Your task to perform on an android device: Go to Amazon Image 0: 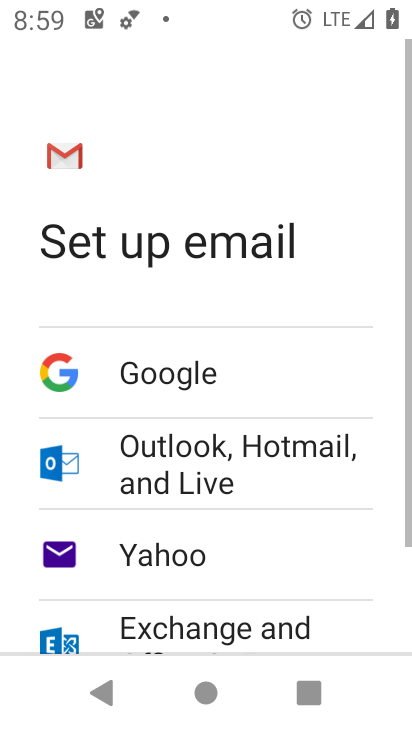
Step 0: press home button
Your task to perform on an android device: Go to Amazon Image 1: 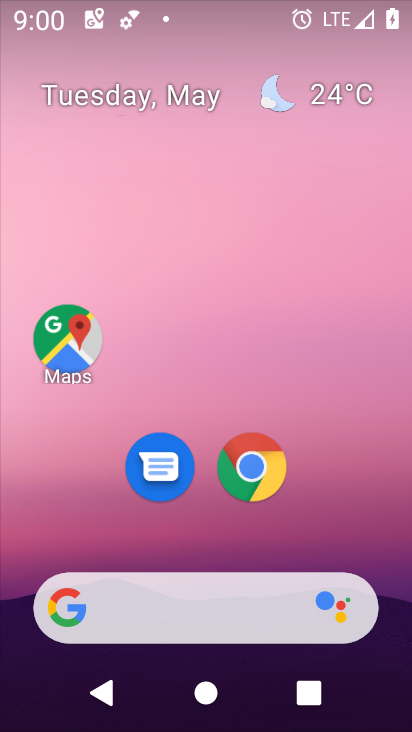
Step 1: drag from (395, 681) to (327, 199)
Your task to perform on an android device: Go to Amazon Image 2: 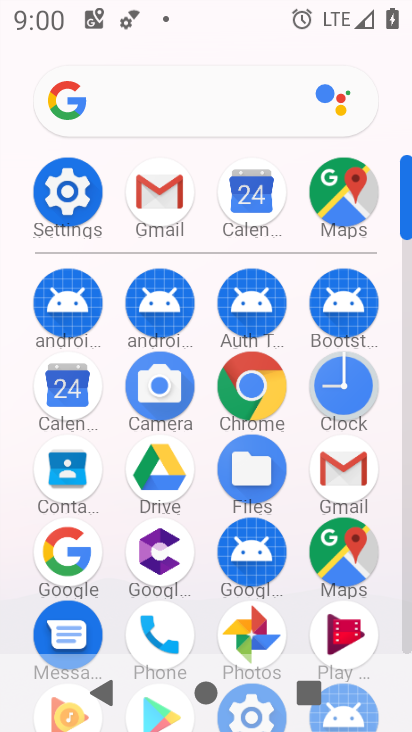
Step 2: click (240, 377)
Your task to perform on an android device: Go to Amazon Image 3: 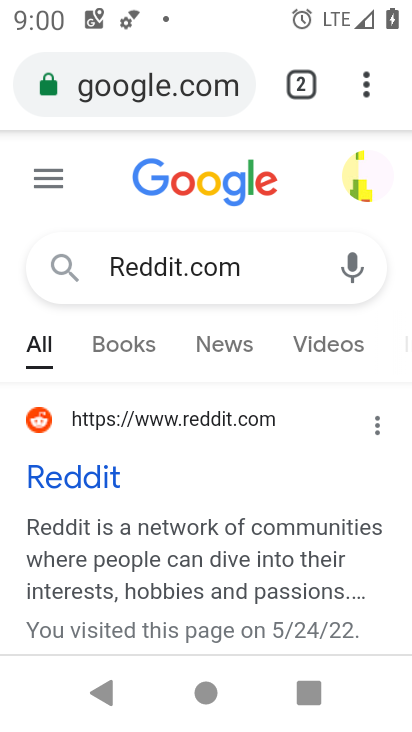
Step 3: click (236, 77)
Your task to perform on an android device: Go to Amazon Image 4: 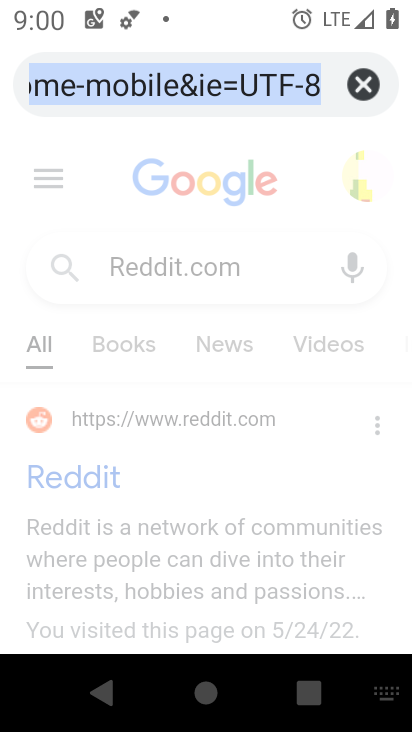
Step 4: click (364, 84)
Your task to perform on an android device: Go to Amazon Image 5: 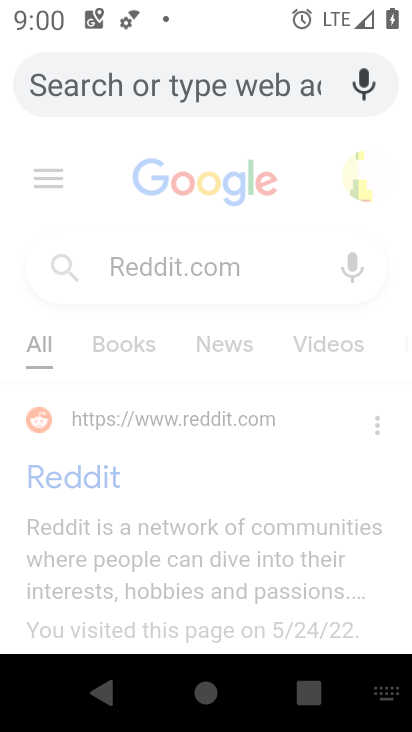
Step 5: type "Amazon"
Your task to perform on an android device: Go to Amazon Image 6: 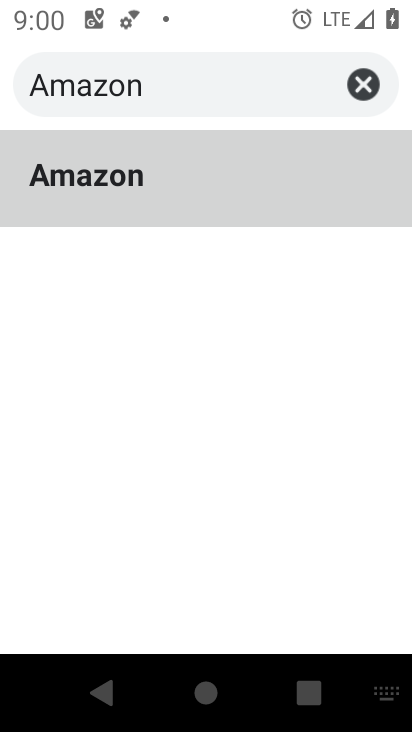
Step 6: click (109, 177)
Your task to perform on an android device: Go to Amazon Image 7: 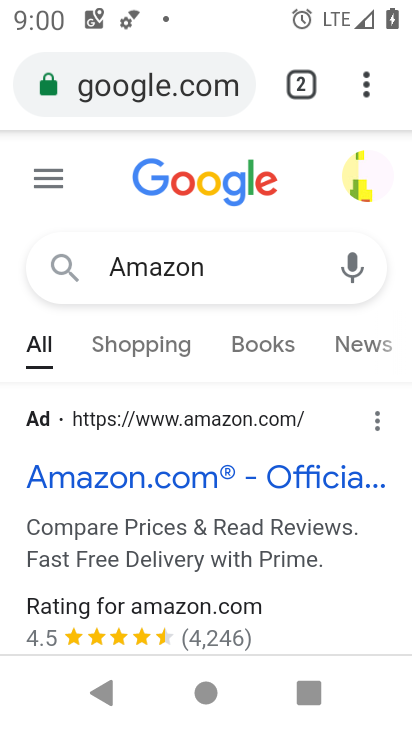
Step 7: task complete